Your task to perform on an android device: make emails show in primary in the gmail app Image 0: 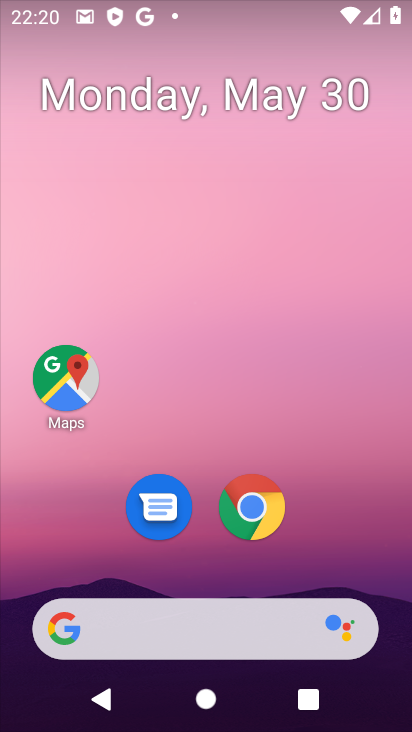
Step 0: drag from (371, 578) to (342, 88)
Your task to perform on an android device: make emails show in primary in the gmail app Image 1: 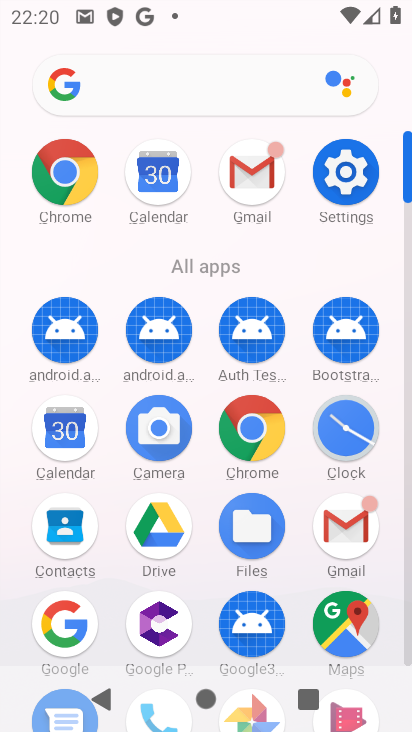
Step 1: click (357, 512)
Your task to perform on an android device: make emails show in primary in the gmail app Image 2: 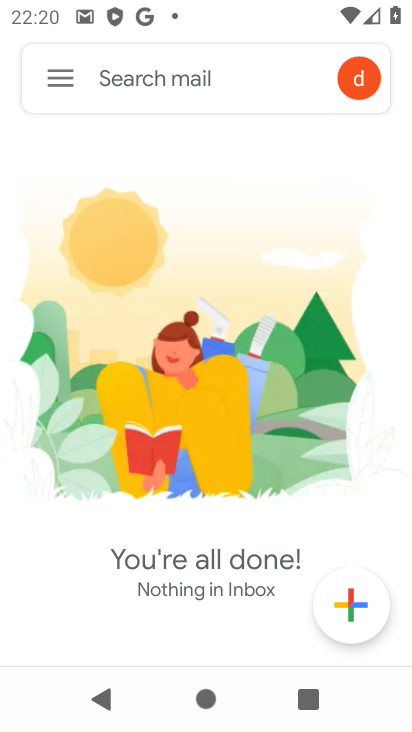
Step 2: click (54, 82)
Your task to perform on an android device: make emails show in primary in the gmail app Image 3: 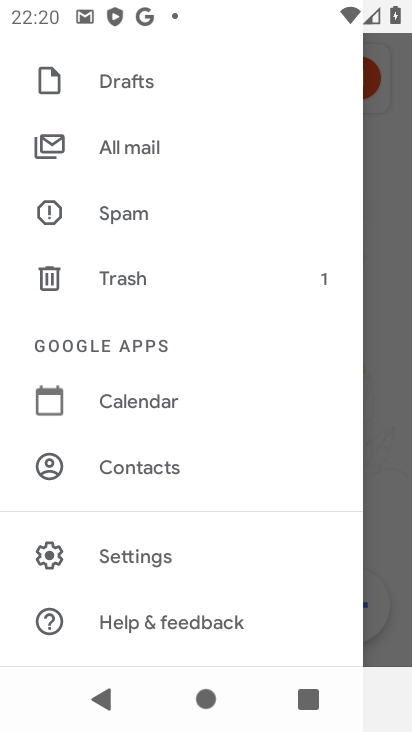
Step 3: click (164, 560)
Your task to perform on an android device: make emails show in primary in the gmail app Image 4: 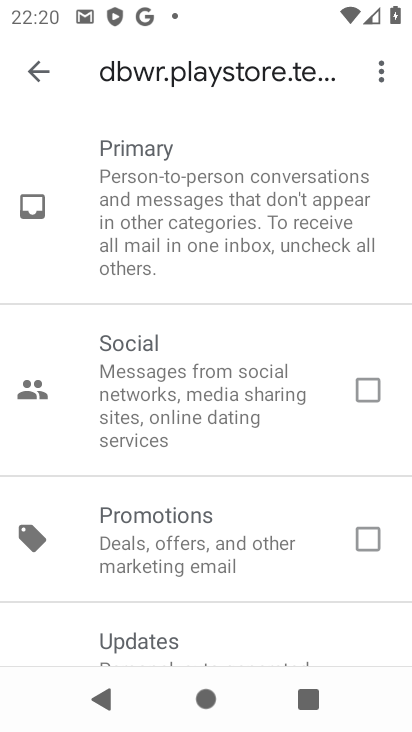
Step 4: task complete